Your task to perform on an android device: Search for pizza restaurants on Maps Image 0: 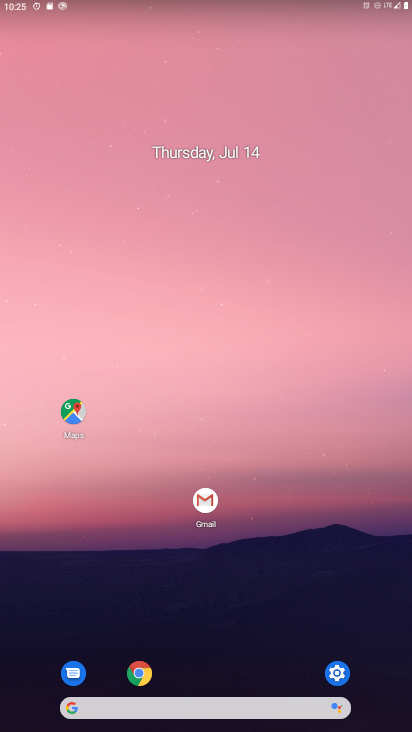
Step 0: click (75, 417)
Your task to perform on an android device: Search for pizza restaurants on Maps Image 1: 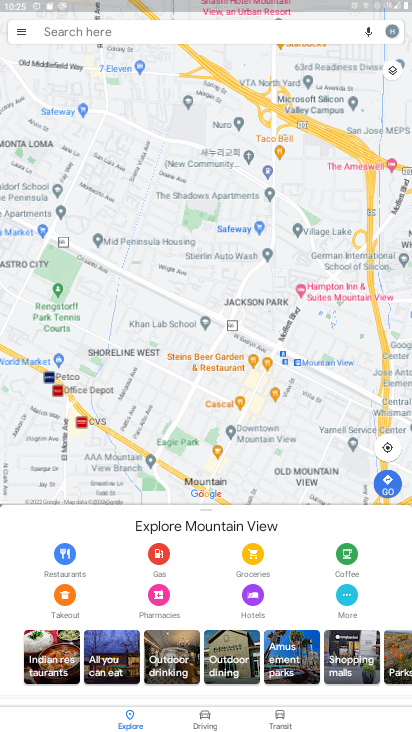
Step 1: click (95, 34)
Your task to perform on an android device: Search for pizza restaurants on Maps Image 2: 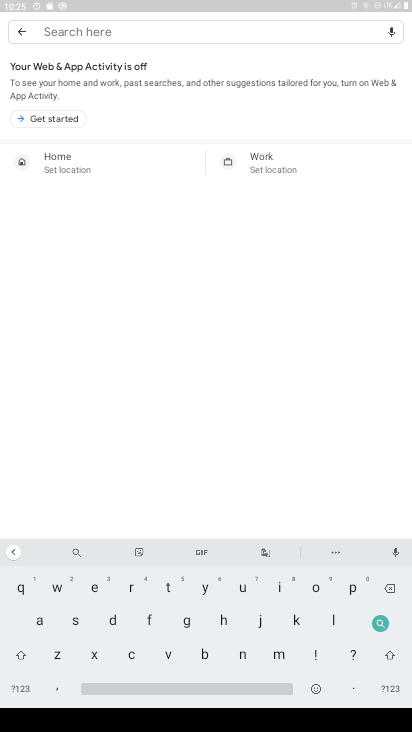
Step 2: click (353, 583)
Your task to perform on an android device: Search for pizza restaurants on Maps Image 3: 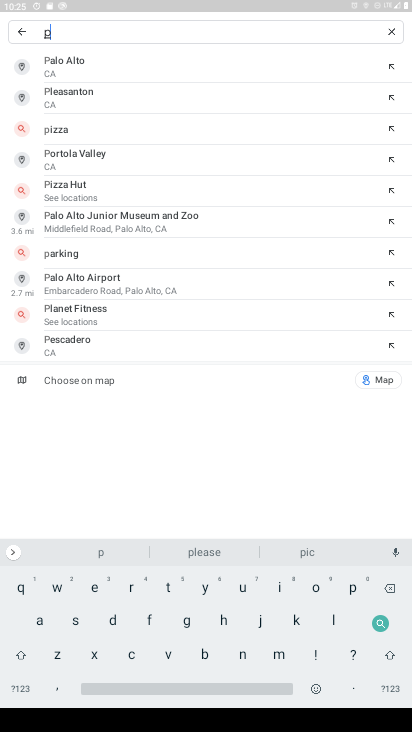
Step 3: click (283, 584)
Your task to perform on an android device: Search for pizza restaurants on Maps Image 4: 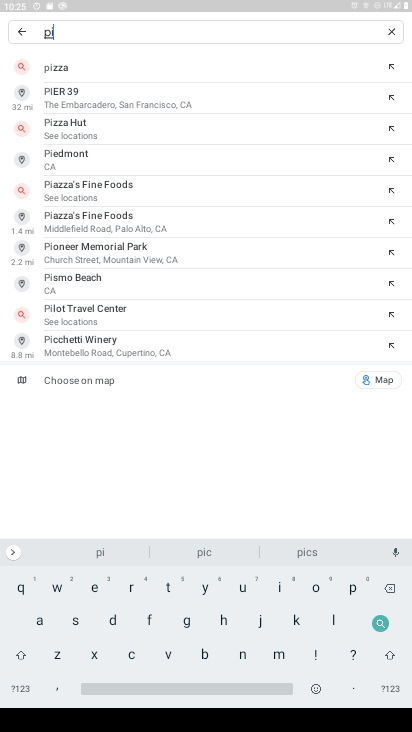
Step 4: click (56, 654)
Your task to perform on an android device: Search for pizza restaurants on Maps Image 5: 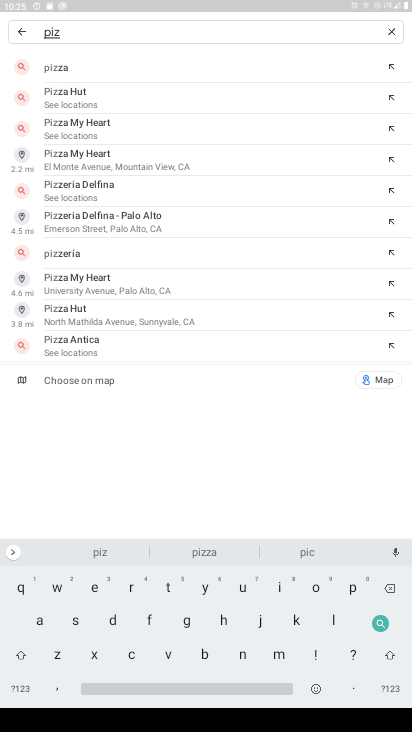
Step 5: click (56, 654)
Your task to perform on an android device: Search for pizza restaurants on Maps Image 6: 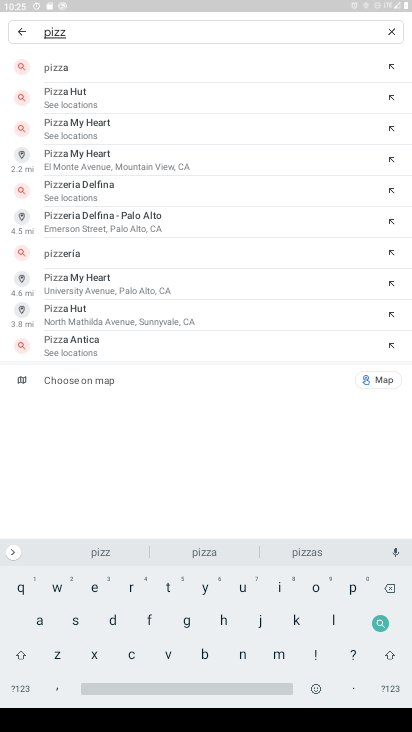
Step 6: click (203, 546)
Your task to perform on an android device: Search for pizza restaurants on Maps Image 7: 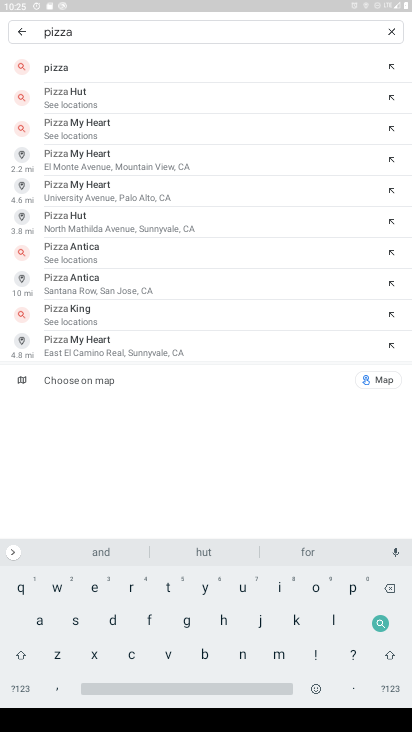
Step 7: click (129, 584)
Your task to perform on an android device: Search for pizza restaurants on Maps Image 8: 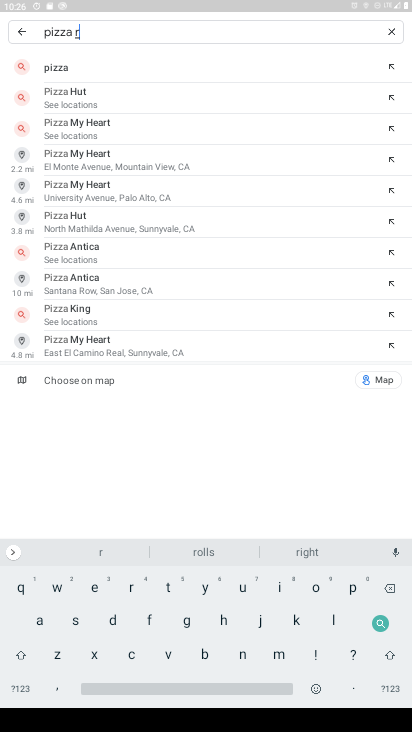
Step 8: click (91, 589)
Your task to perform on an android device: Search for pizza restaurants on Maps Image 9: 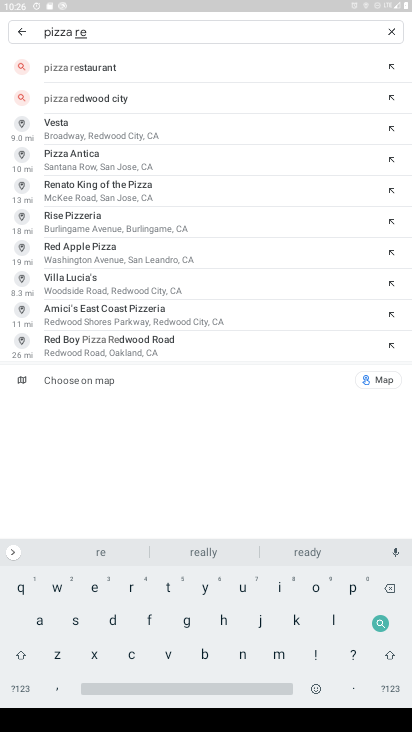
Step 9: click (126, 73)
Your task to perform on an android device: Search for pizza restaurants on Maps Image 10: 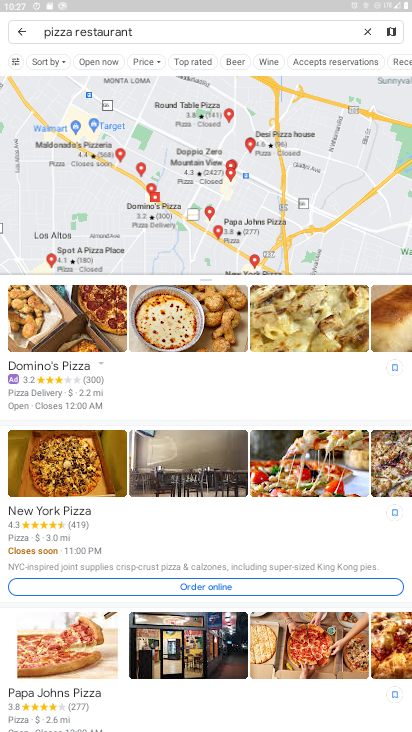
Step 10: task complete